Your task to perform on an android device: Search for sushi restaurants on Maps Image 0: 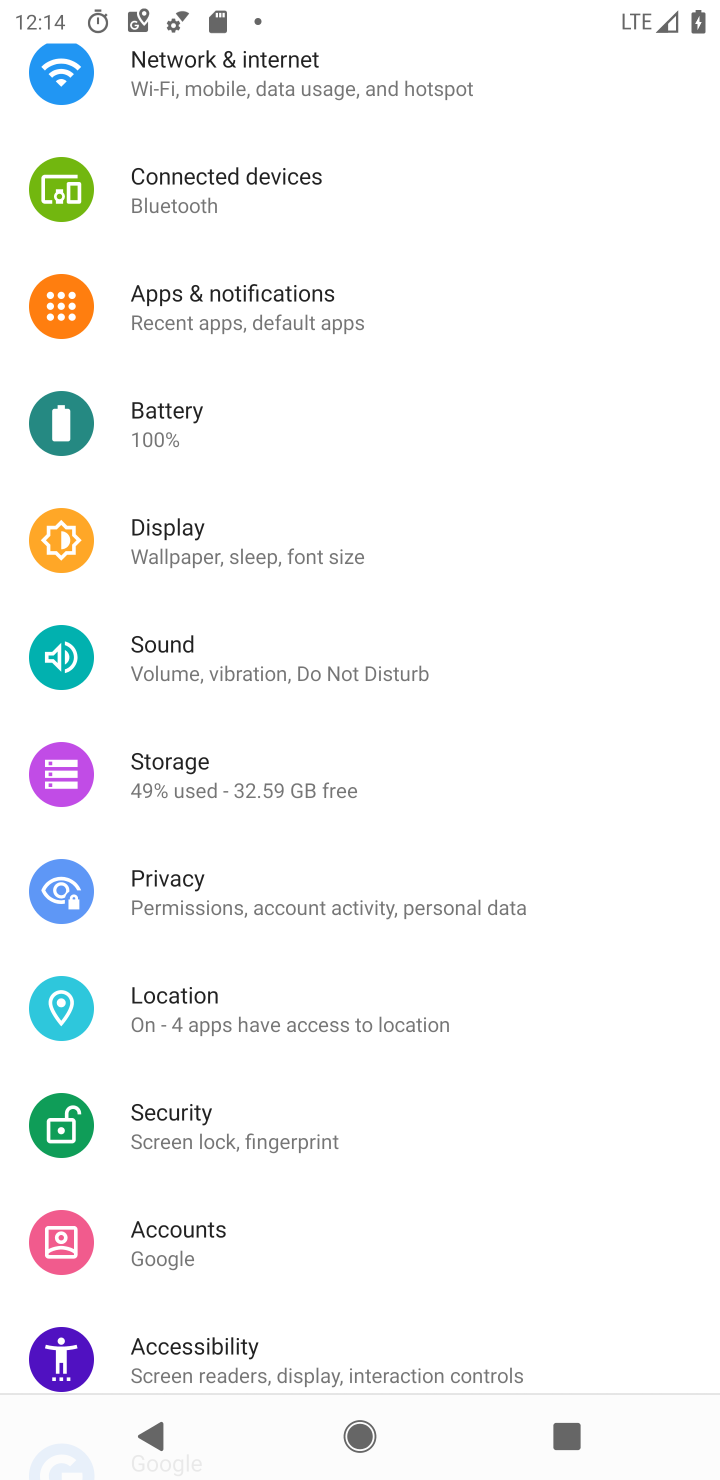
Step 0: press home button
Your task to perform on an android device: Search for sushi restaurants on Maps Image 1: 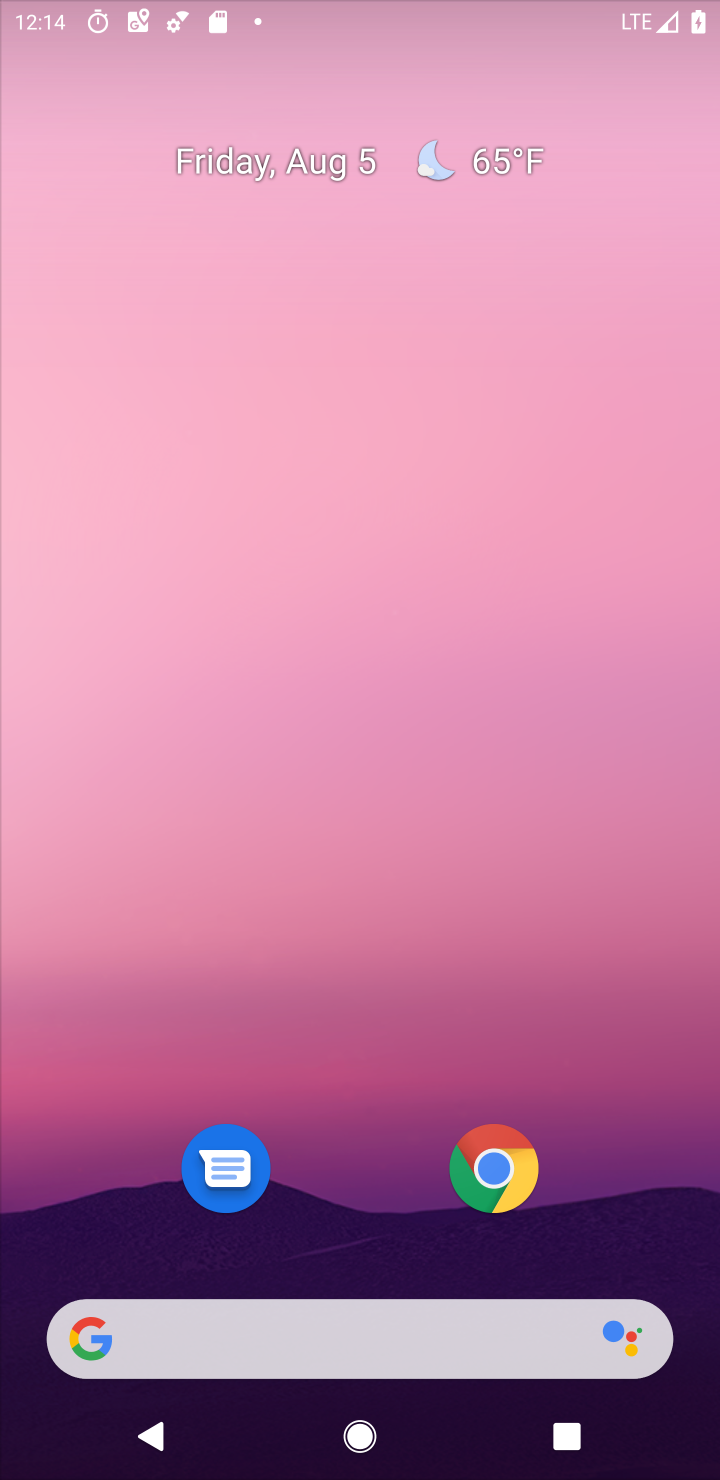
Step 1: drag from (353, 1219) to (490, 10)
Your task to perform on an android device: Search for sushi restaurants on Maps Image 2: 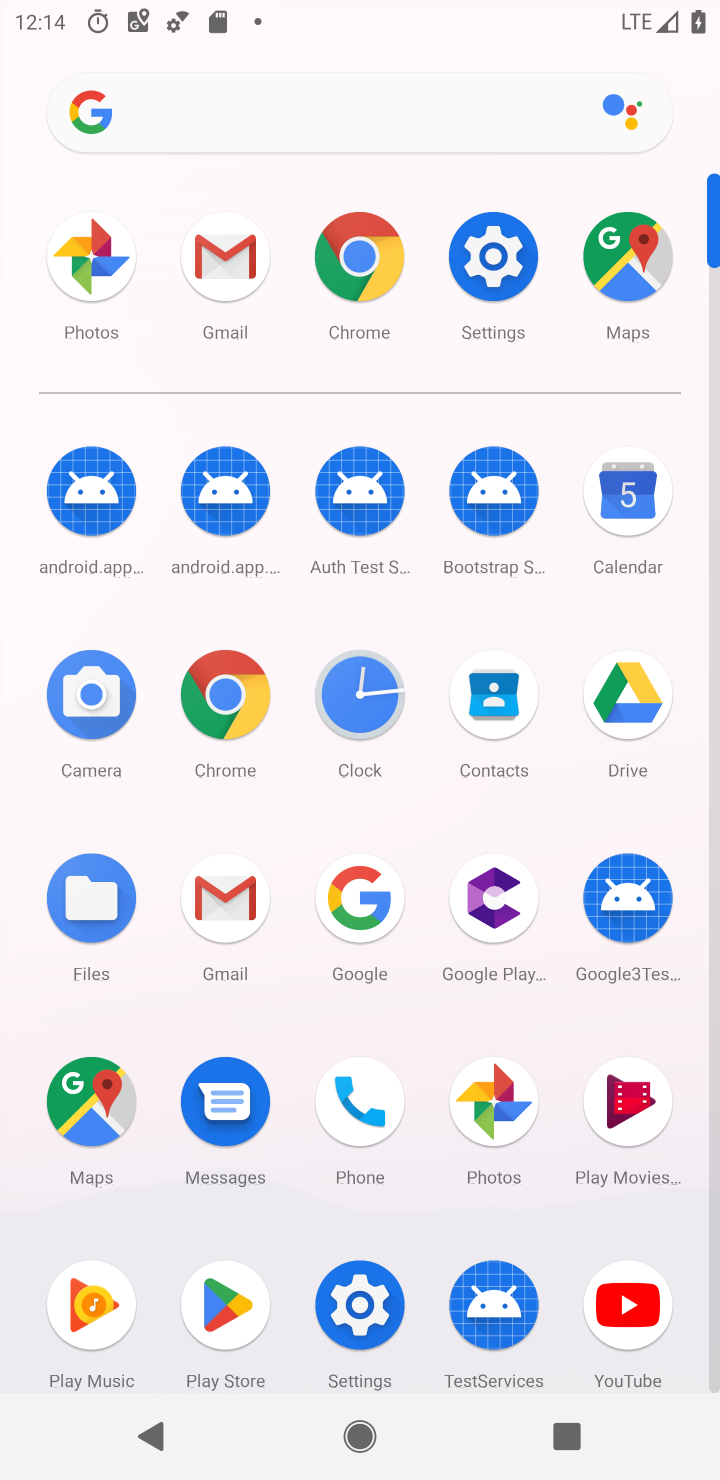
Step 2: click (107, 1141)
Your task to perform on an android device: Search for sushi restaurants on Maps Image 3: 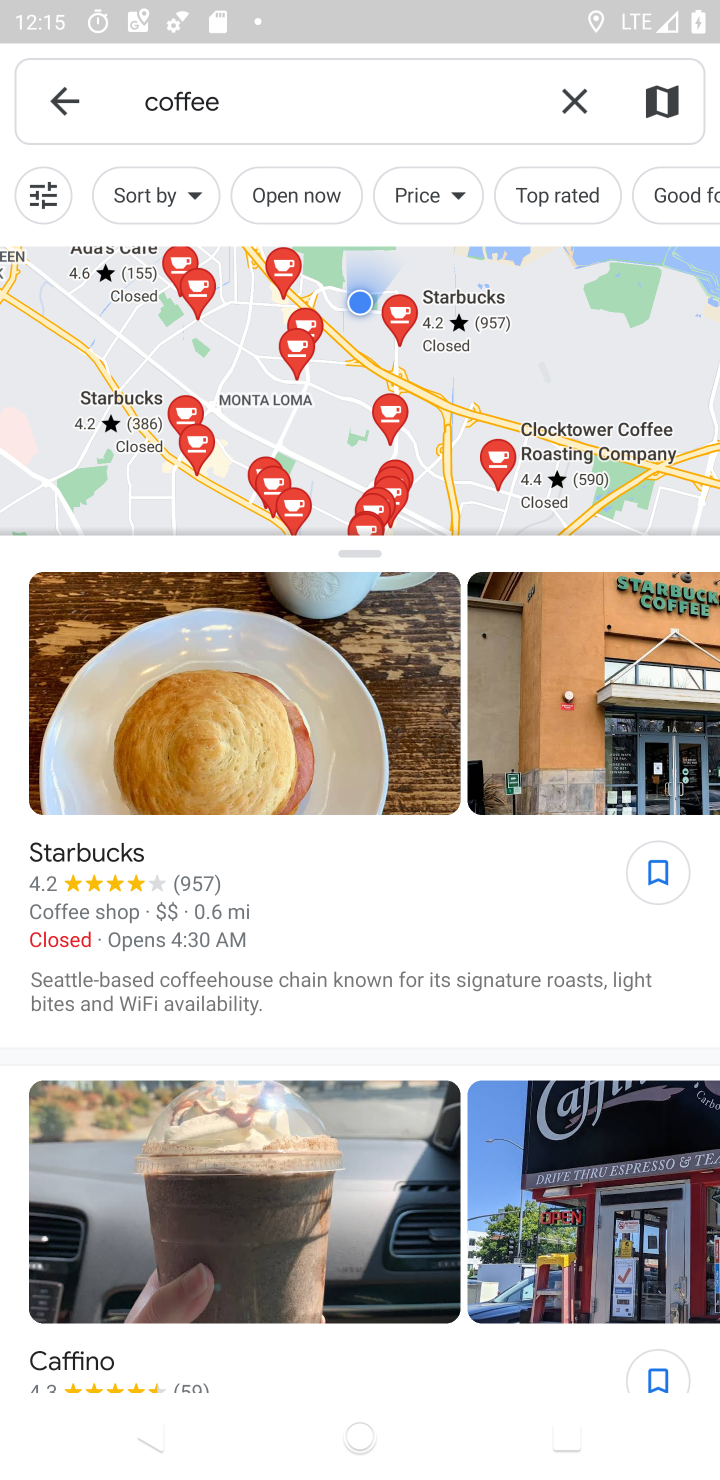
Step 3: click (264, 115)
Your task to perform on an android device: Search for sushi restaurants on Maps Image 4: 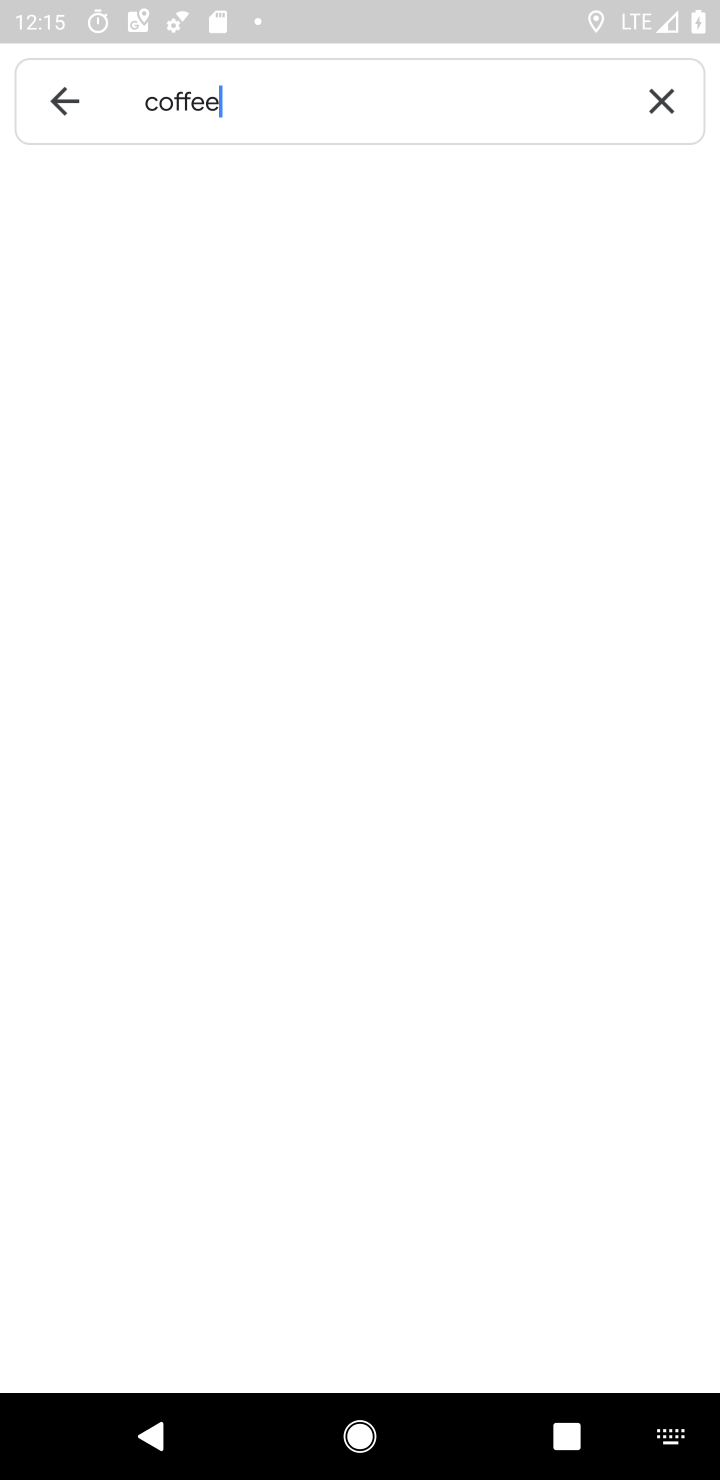
Step 4: click (655, 100)
Your task to perform on an android device: Search for sushi restaurants on Maps Image 5: 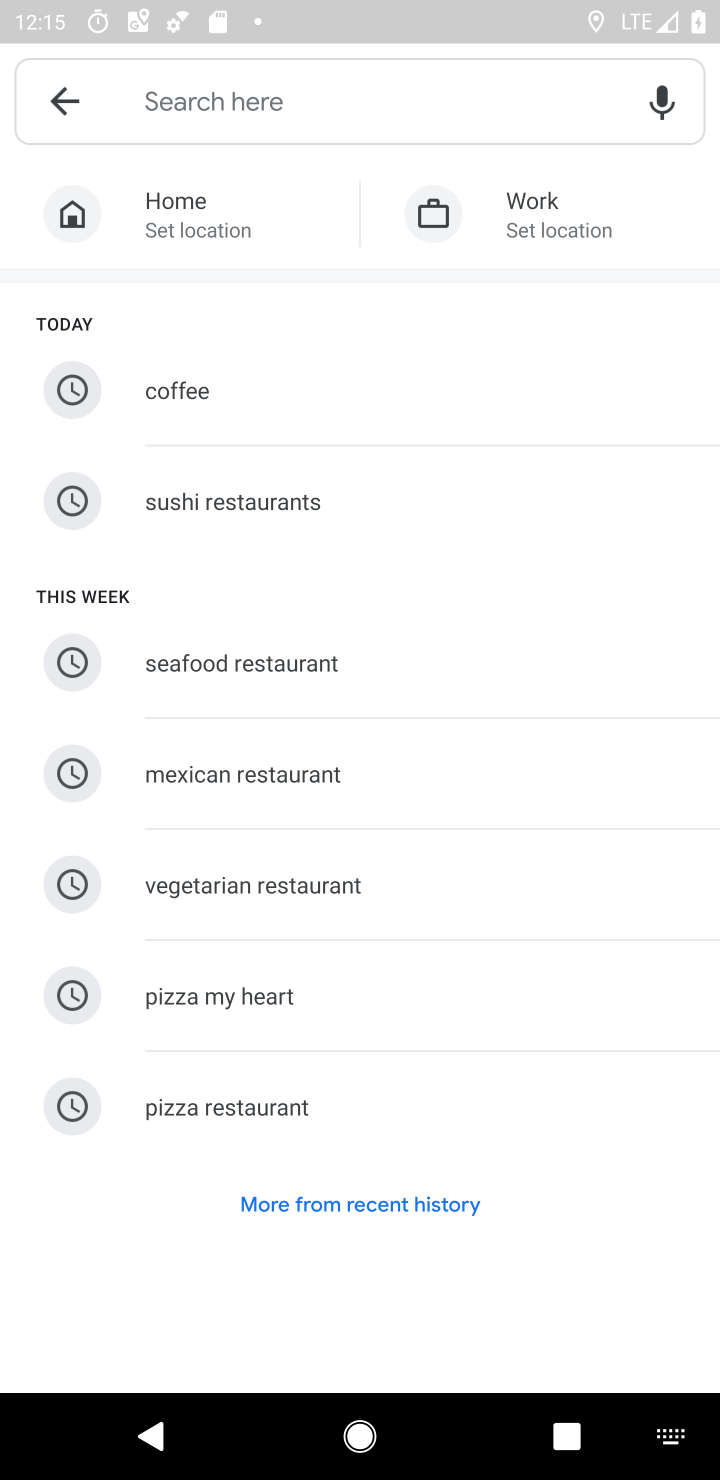
Step 5: type "sushi restaurants"
Your task to perform on an android device: Search for sushi restaurants on Maps Image 6: 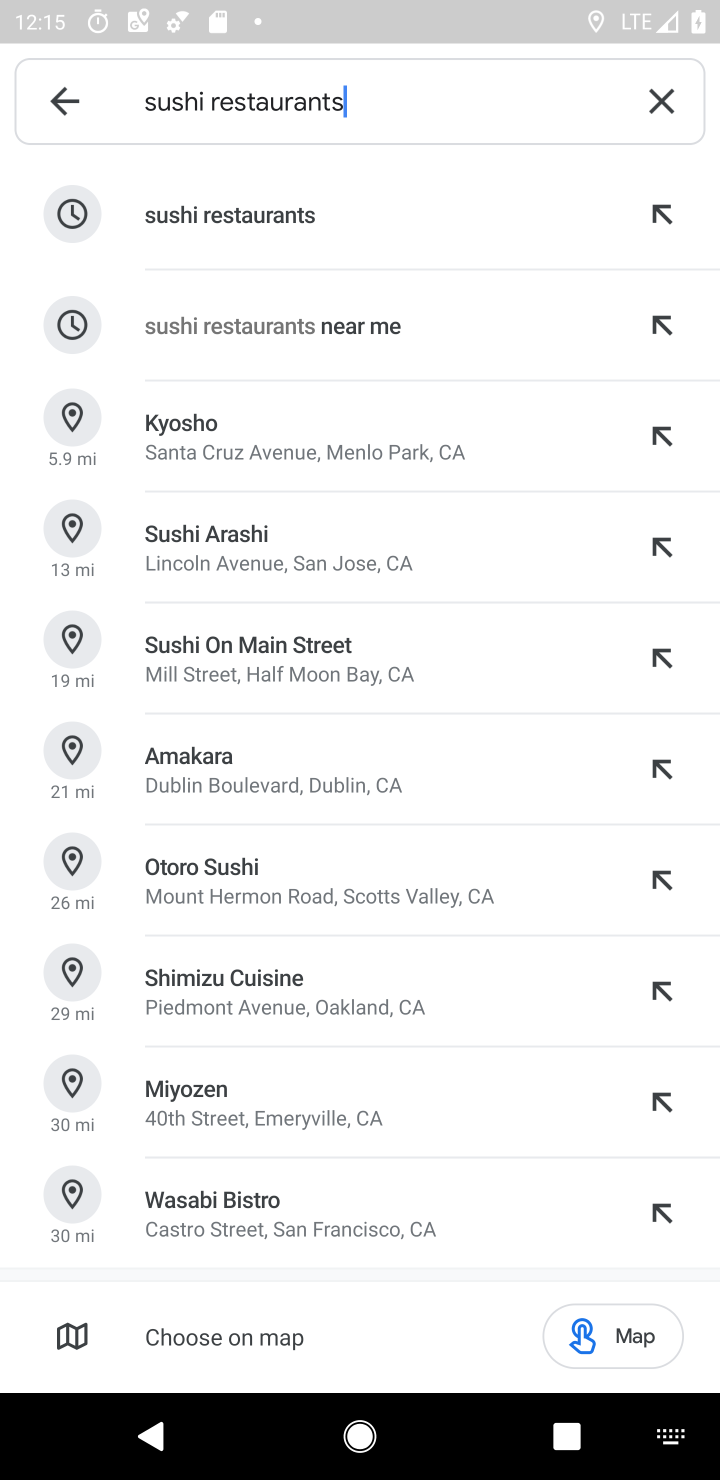
Step 6: click (254, 202)
Your task to perform on an android device: Search for sushi restaurants on Maps Image 7: 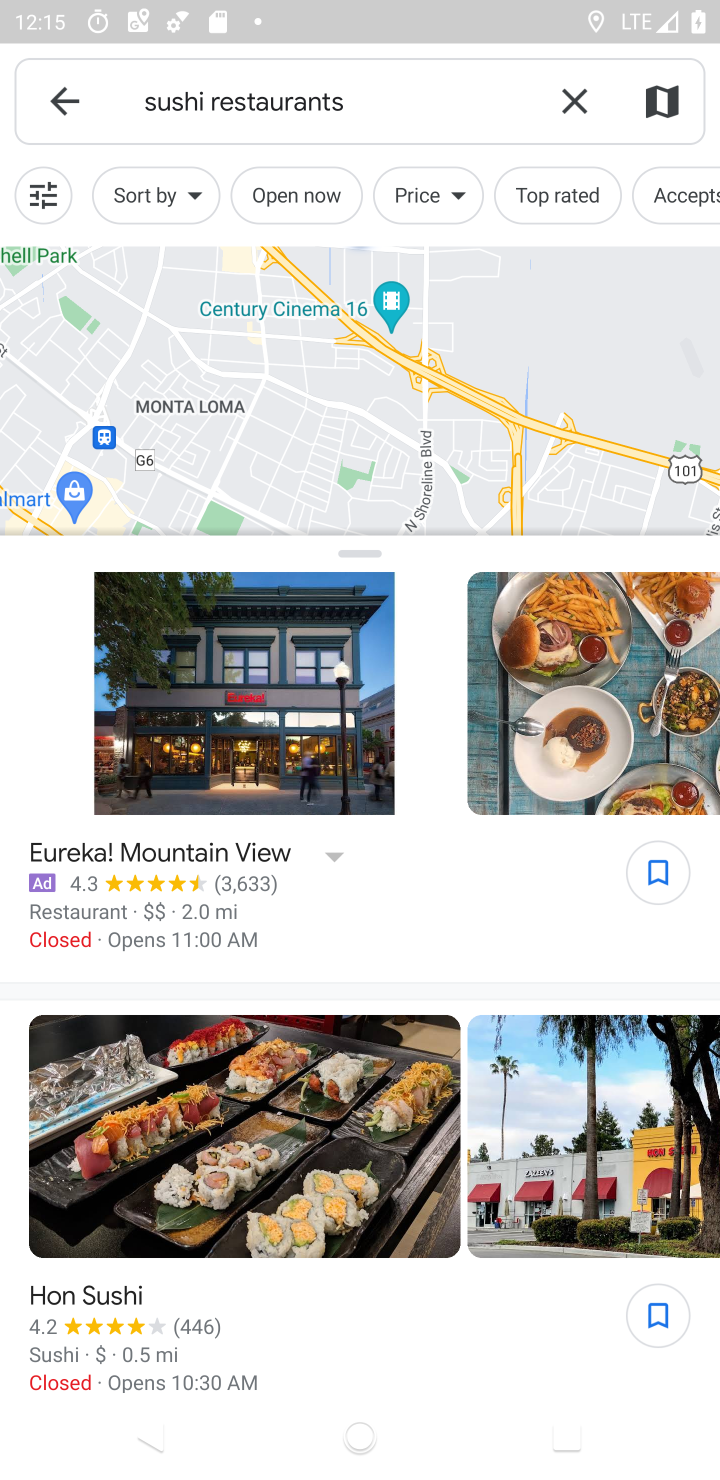
Step 7: task complete